Your task to perform on an android device: check android version Image 0: 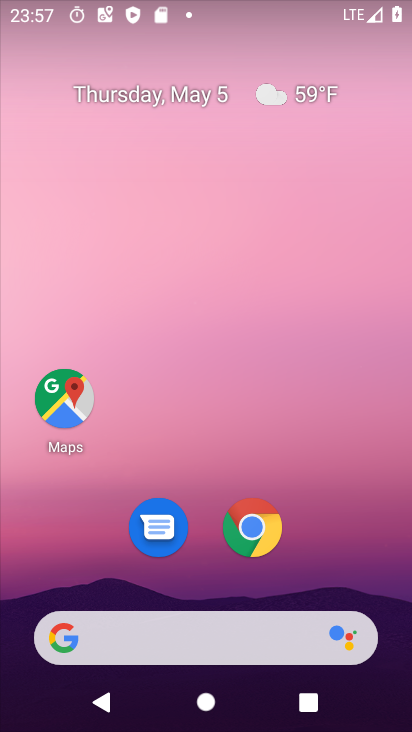
Step 0: drag from (213, 549) to (312, 24)
Your task to perform on an android device: check android version Image 1: 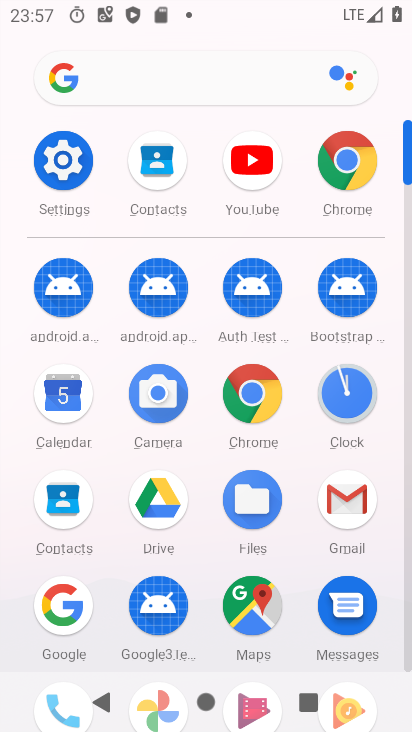
Step 1: click (90, 177)
Your task to perform on an android device: check android version Image 2: 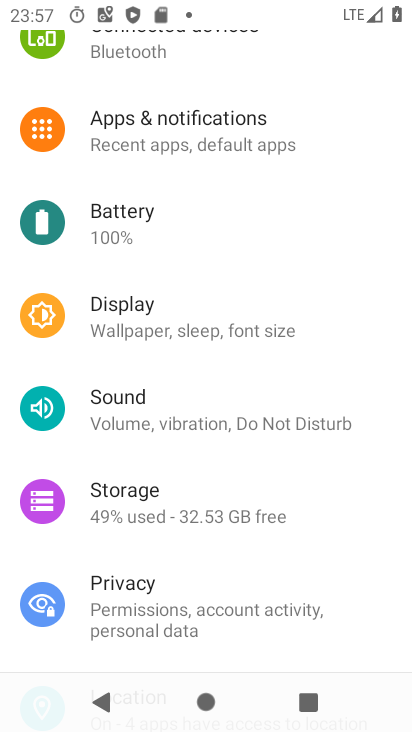
Step 2: drag from (152, 497) to (215, 60)
Your task to perform on an android device: check android version Image 3: 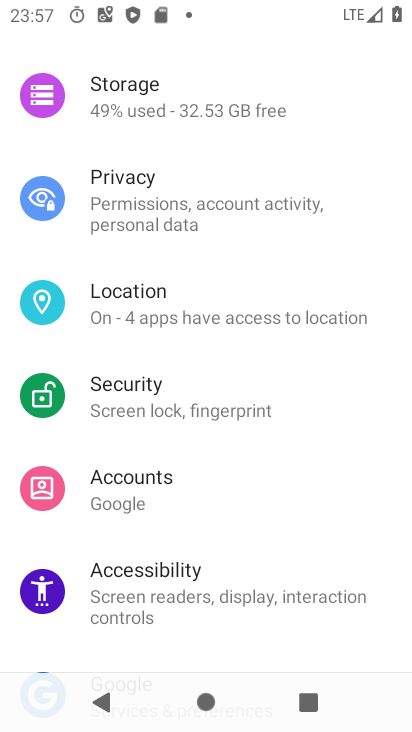
Step 3: drag from (197, 516) to (263, 0)
Your task to perform on an android device: check android version Image 4: 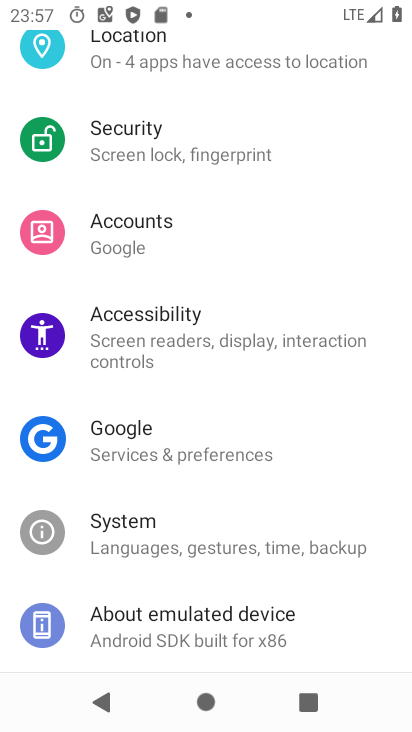
Step 4: click (210, 613)
Your task to perform on an android device: check android version Image 5: 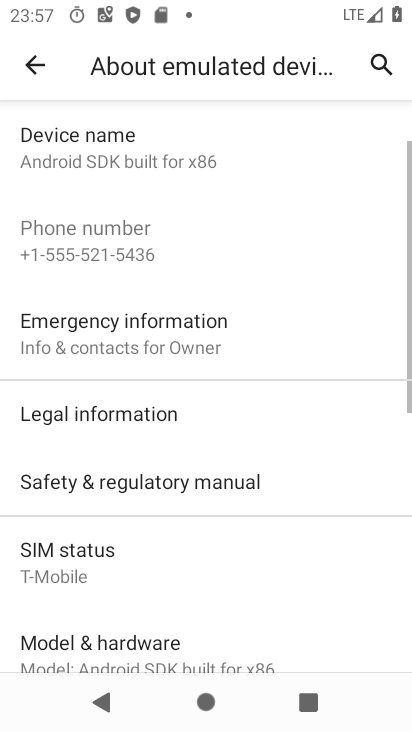
Step 5: drag from (81, 509) to (99, 241)
Your task to perform on an android device: check android version Image 6: 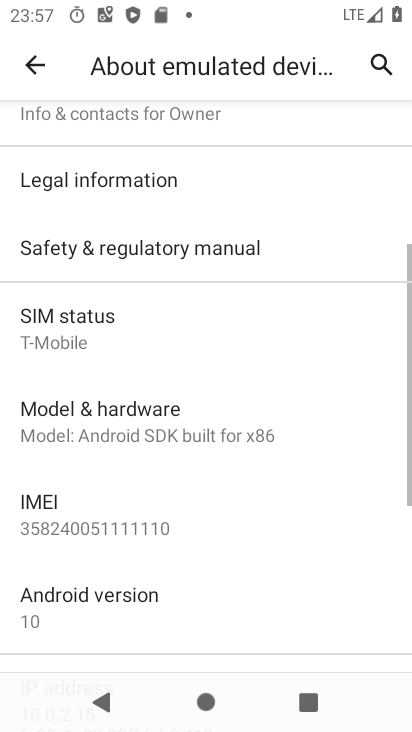
Step 6: drag from (139, 546) to (239, 179)
Your task to perform on an android device: check android version Image 7: 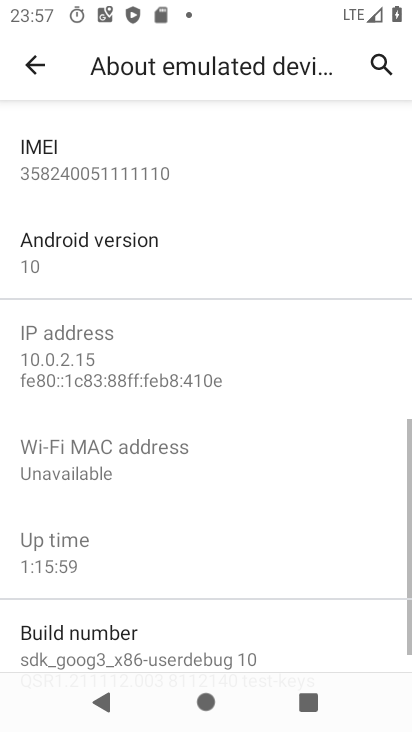
Step 7: click (104, 263)
Your task to perform on an android device: check android version Image 8: 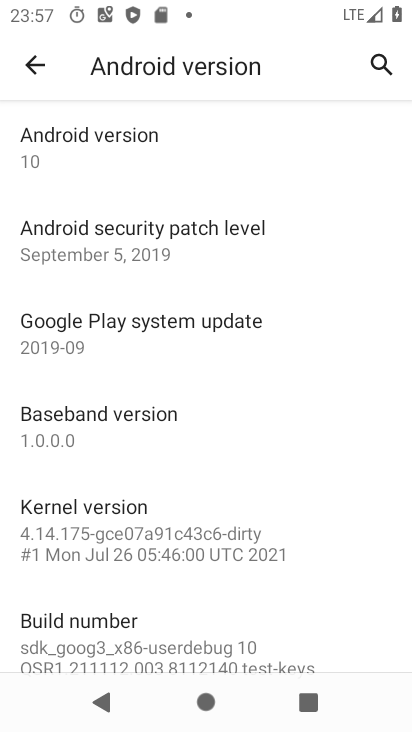
Step 8: task complete